Your task to perform on an android device: add a label to a message in the gmail app Image 0: 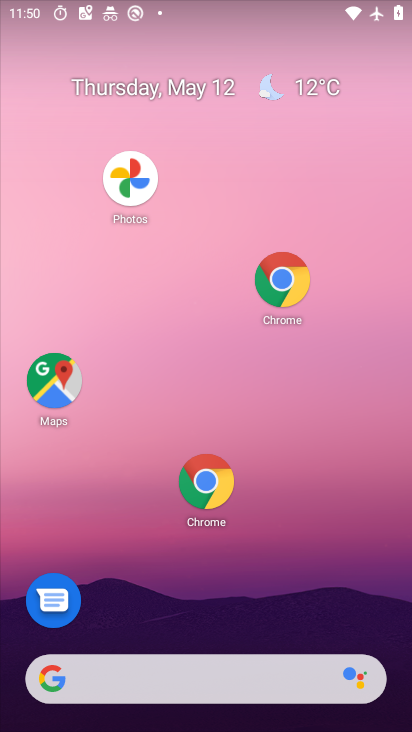
Step 0: drag from (292, 544) to (51, 62)
Your task to perform on an android device: add a label to a message in the gmail app Image 1: 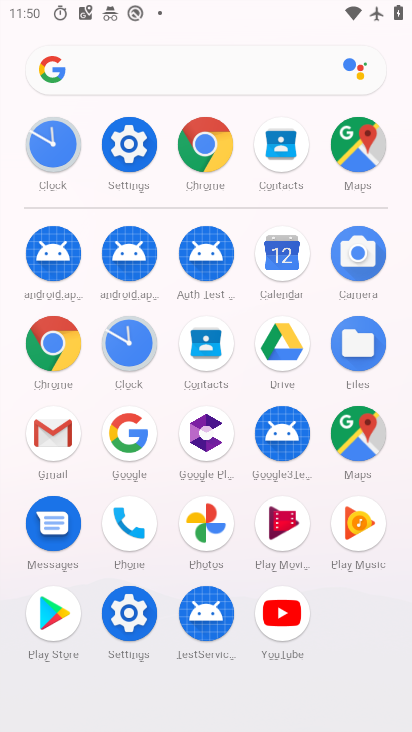
Step 1: click (47, 432)
Your task to perform on an android device: add a label to a message in the gmail app Image 2: 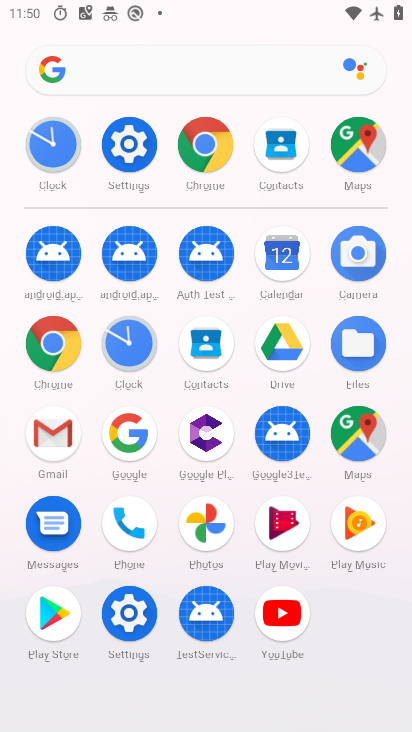
Step 2: click (48, 430)
Your task to perform on an android device: add a label to a message in the gmail app Image 3: 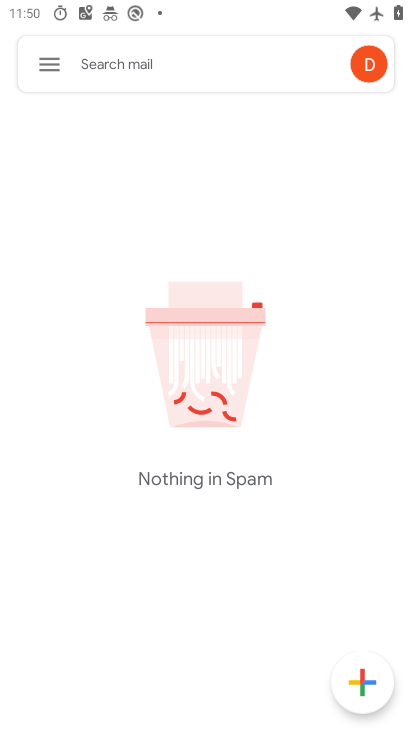
Step 3: click (48, 430)
Your task to perform on an android device: add a label to a message in the gmail app Image 4: 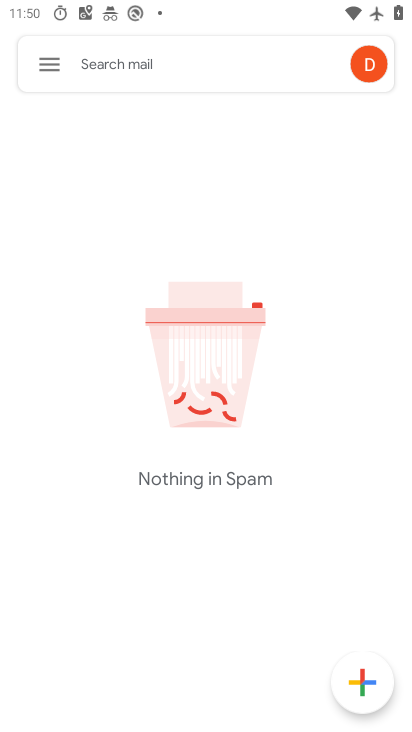
Step 4: click (41, 56)
Your task to perform on an android device: add a label to a message in the gmail app Image 5: 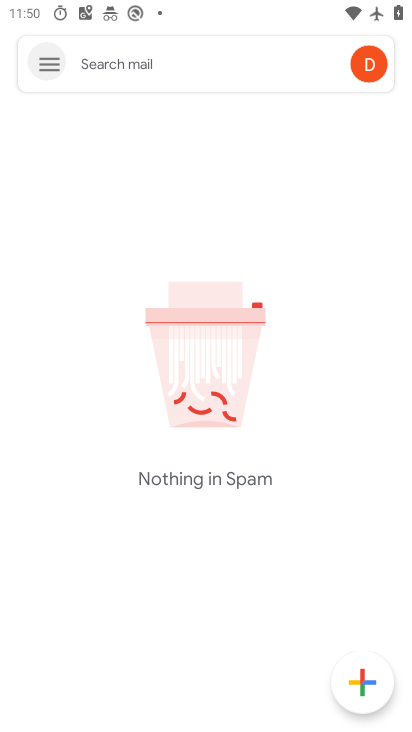
Step 5: click (41, 56)
Your task to perform on an android device: add a label to a message in the gmail app Image 6: 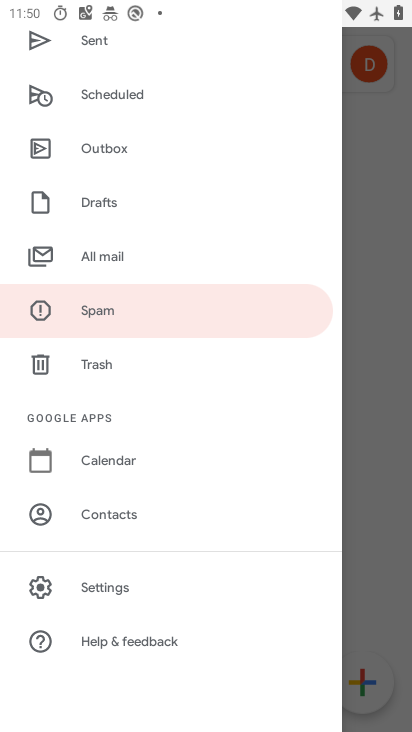
Step 6: click (115, 257)
Your task to perform on an android device: add a label to a message in the gmail app Image 7: 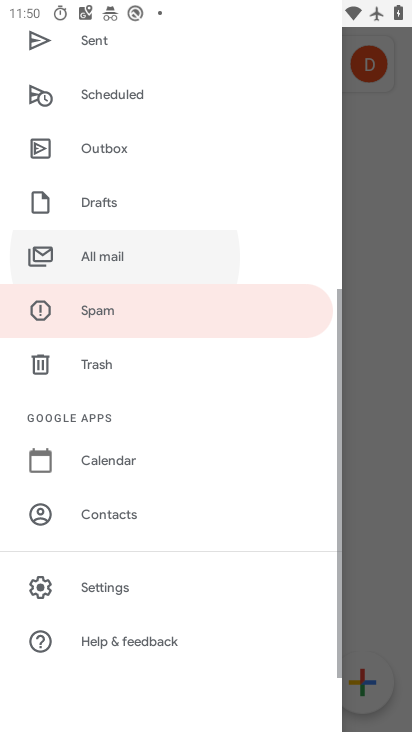
Step 7: click (115, 257)
Your task to perform on an android device: add a label to a message in the gmail app Image 8: 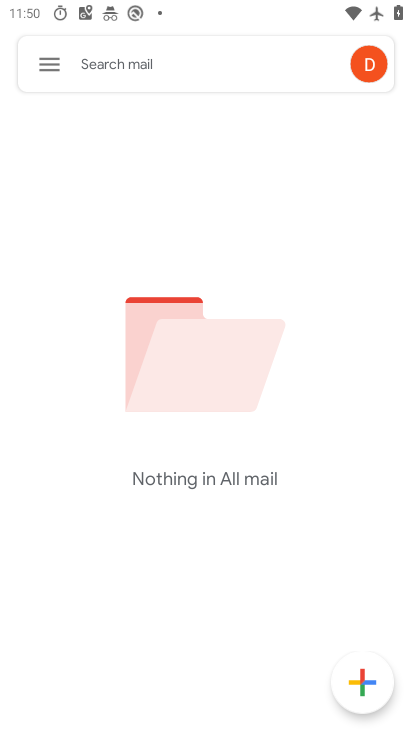
Step 8: task complete